Your task to perform on an android device: set the stopwatch Image 0: 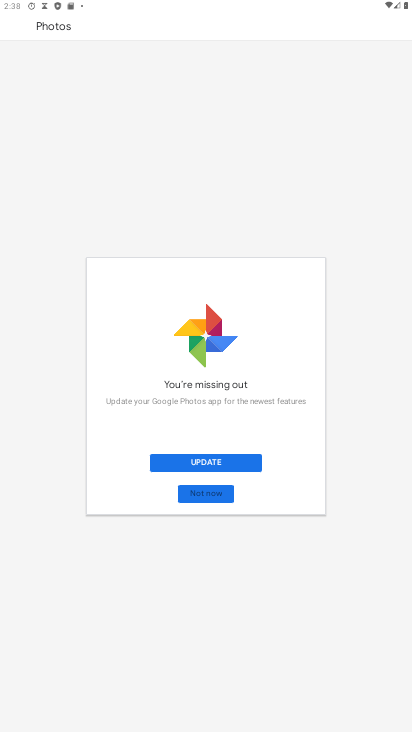
Step 0: press home button
Your task to perform on an android device: set the stopwatch Image 1: 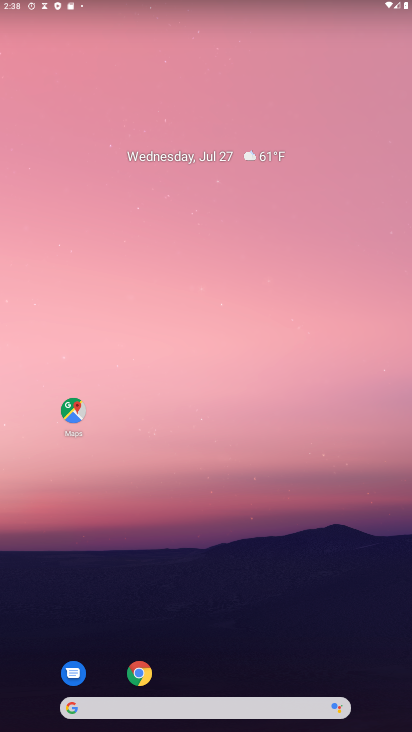
Step 1: drag from (211, 196) to (243, 135)
Your task to perform on an android device: set the stopwatch Image 2: 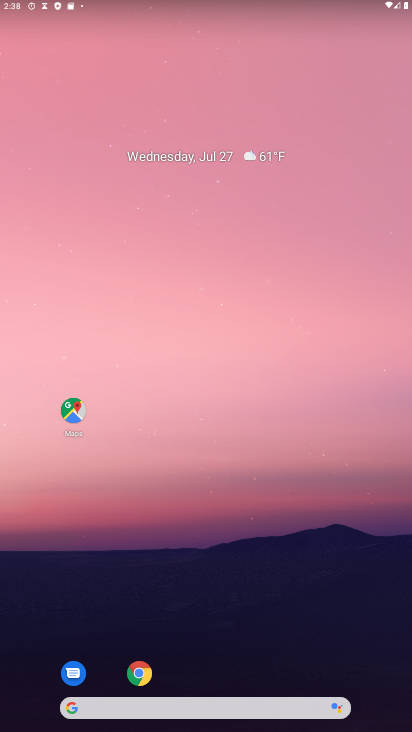
Step 2: drag from (94, 522) to (261, 69)
Your task to perform on an android device: set the stopwatch Image 3: 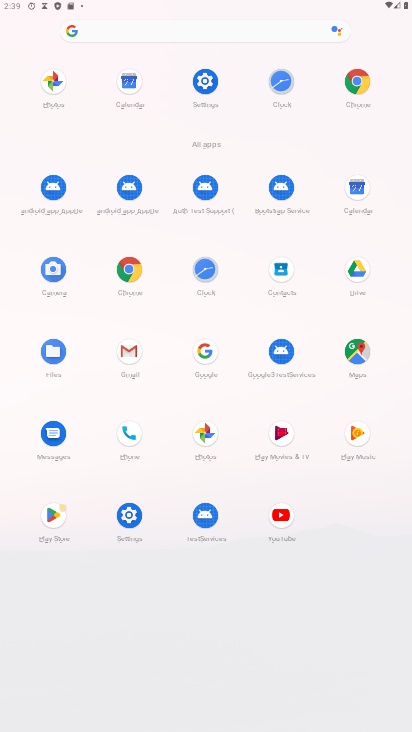
Step 3: click (266, 76)
Your task to perform on an android device: set the stopwatch Image 4: 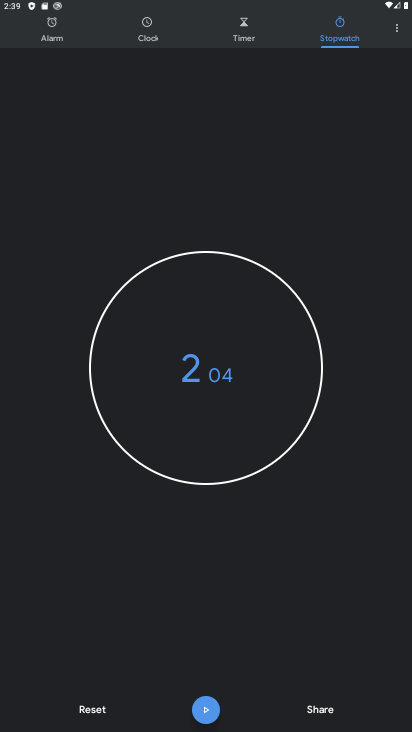
Step 4: click (216, 386)
Your task to perform on an android device: set the stopwatch Image 5: 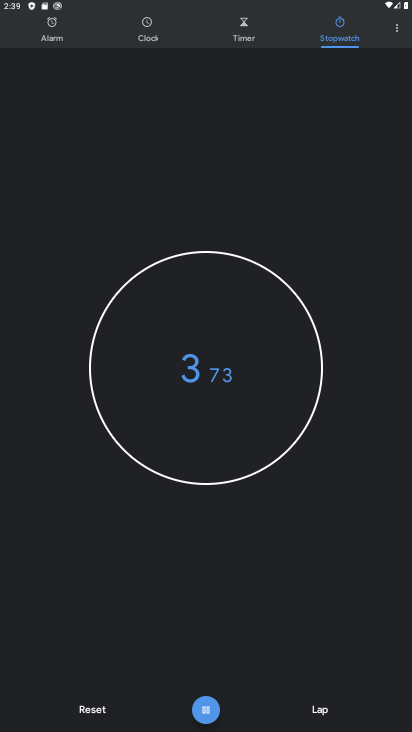
Step 5: click (202, 392)
Your task to perform on an android device: set the stopwatch Image 6: 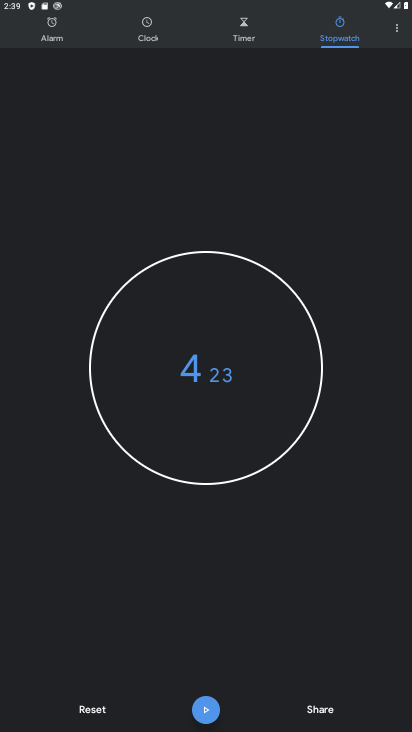
Step 6: task complete